Your task to perform on an android device: create a new album in the google photos Image 0: 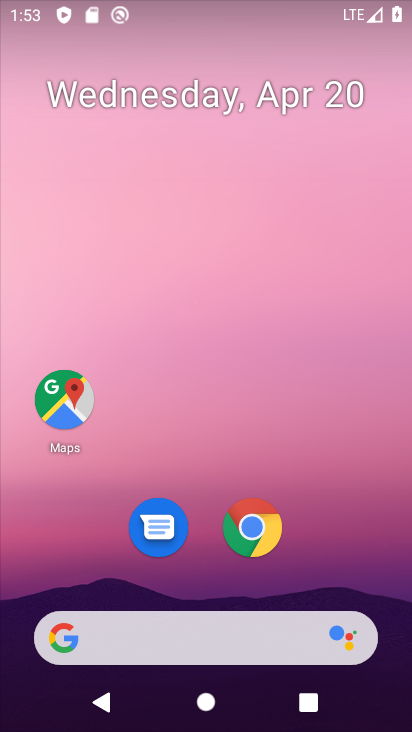
Step 0: drag from (214, 597) to (186, 111)
Your task to perform on an android device: create a new album in the google photos Image 1: 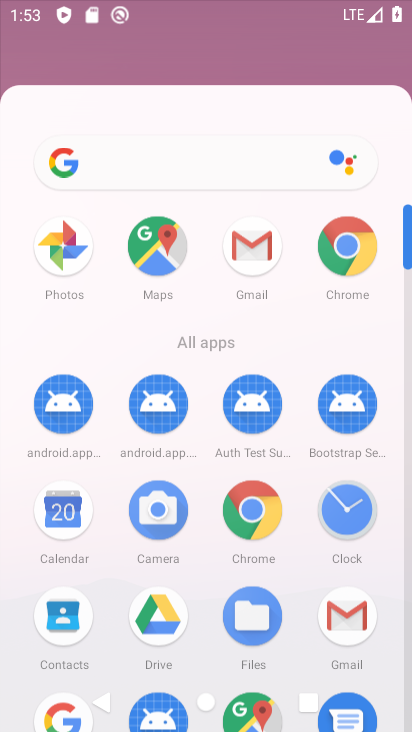
Step 1: click (186, 111)
Your task to perform on an android device: create a new album in the google photos Image 2: 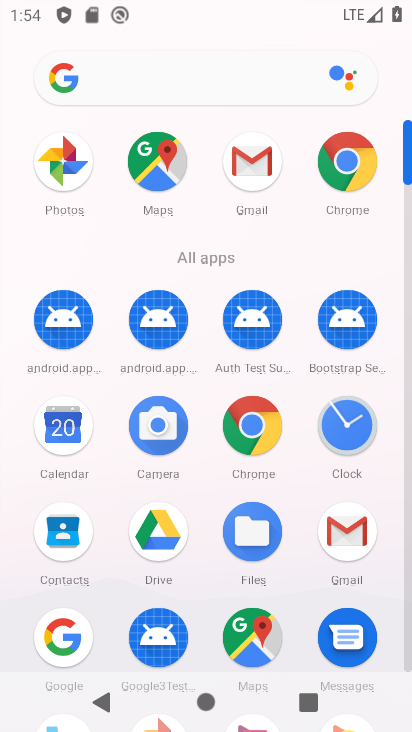
Step 2: click (72, 169)
Your task to perform on an android device: create a new album in the google photos Image 3: 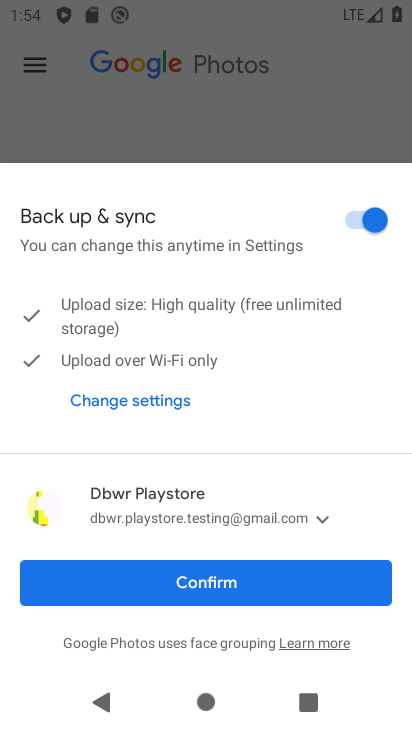
Step 3: click (75, 81)
Your task to perform on an android device: create a new album in the google photos Image 4: 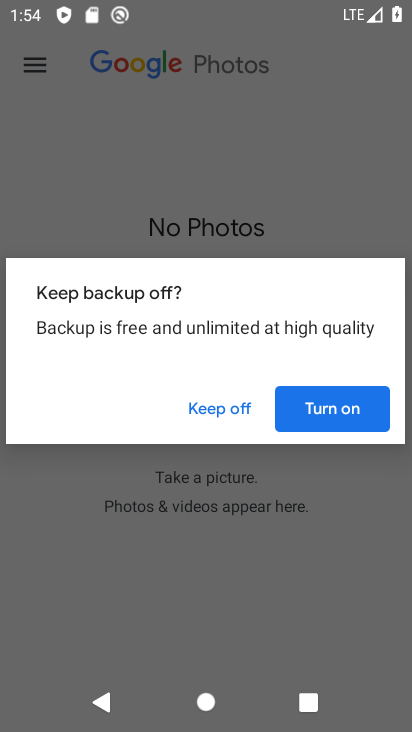
Step 4: click (222, 424)
Your task to perform on an android device: create a new album in the google photos Image 5: 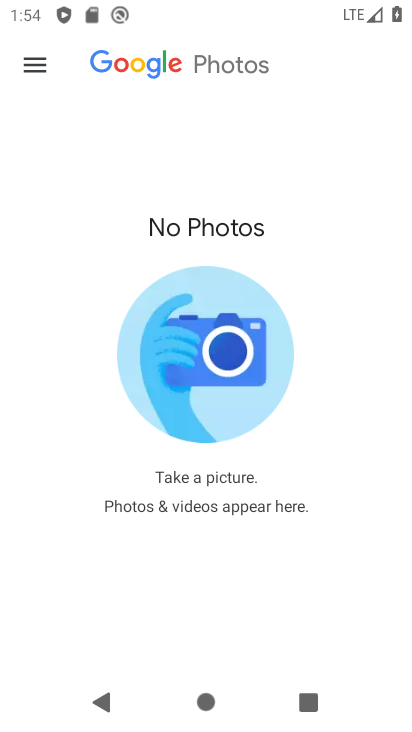
Step 5: task complete